Your task to perform on an android device: Open accessibility settings Image 0: 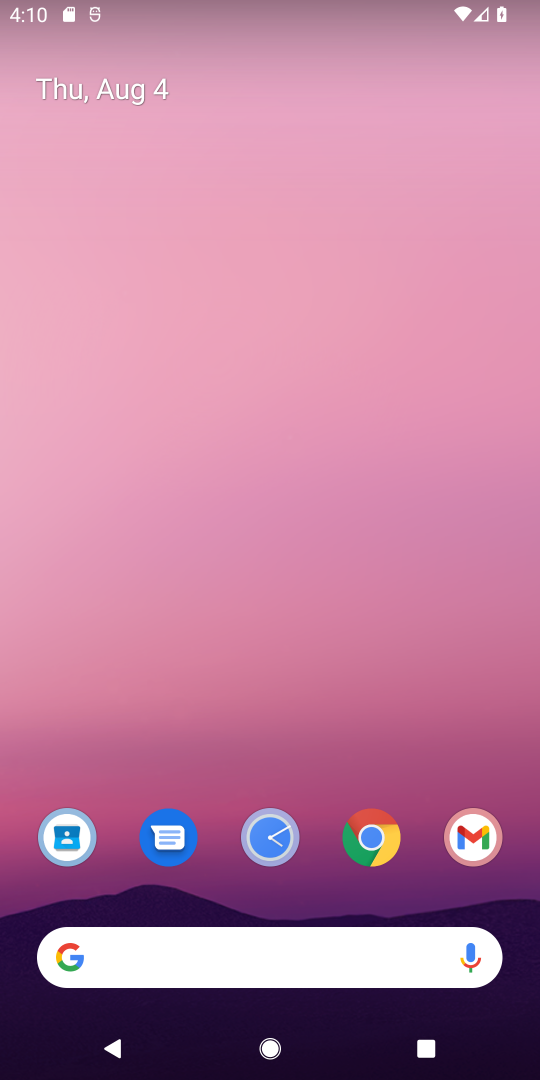
Step 0: press home button
Your task to perform on an android device: Open accessibility settings Image 1: 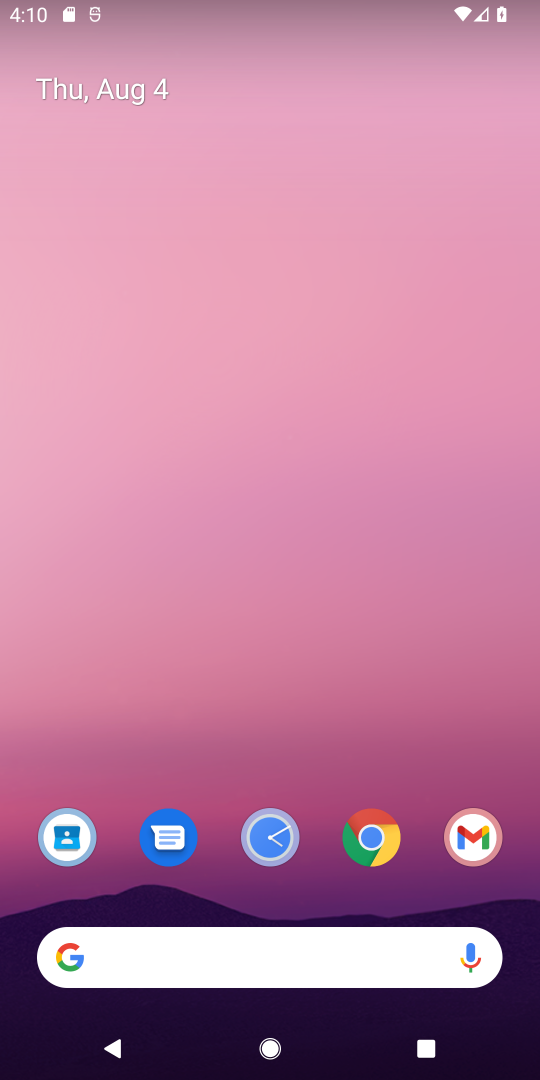
Step 1: drag from (317, 780) to (328, 0)
Your task to perform on an android device: Open accessibility settings Image 2: 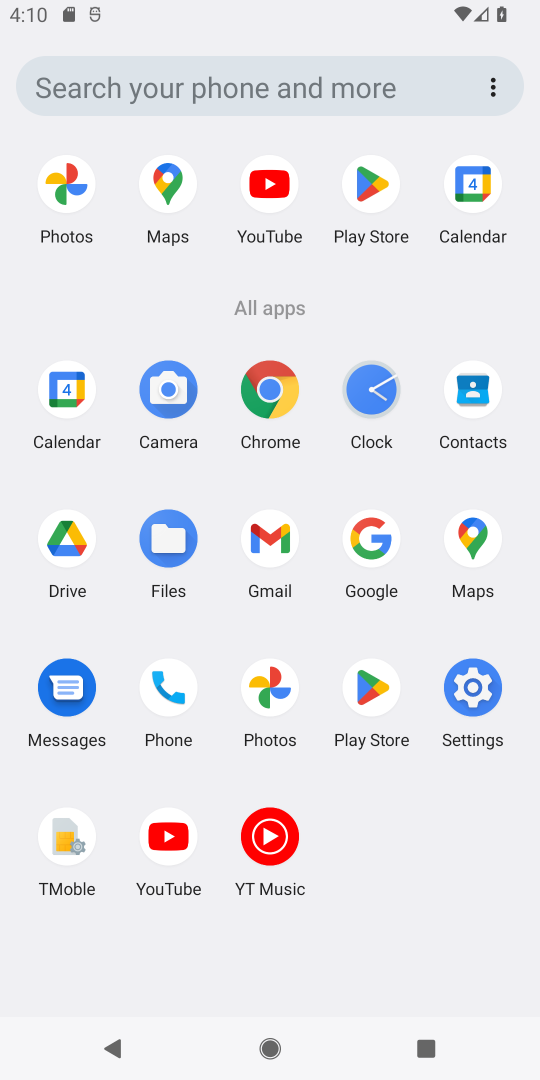
Step 2: click (470, 685)
Your task to perform on an android device: Open accessibility settings Image 3: 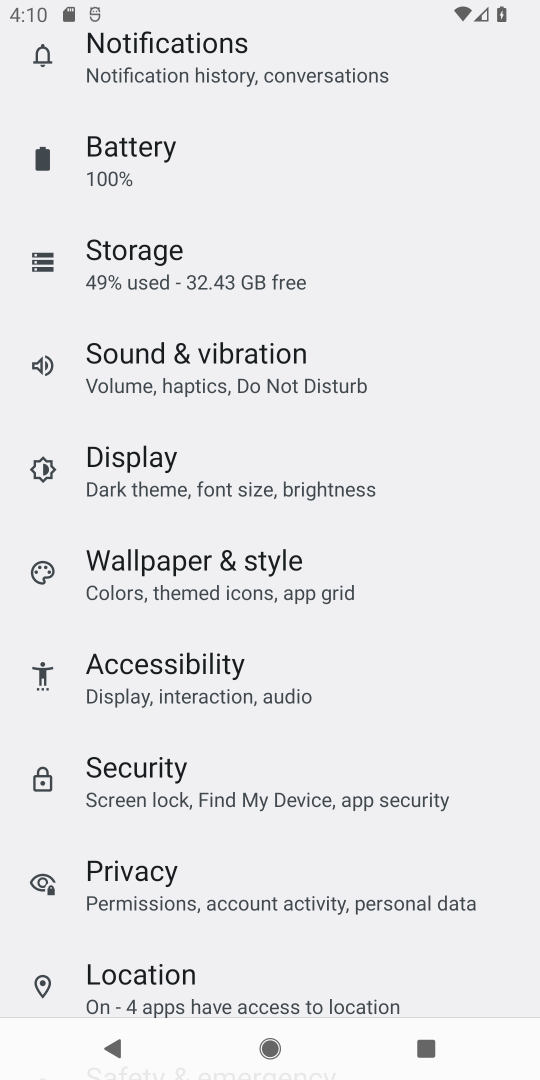
Step 3: click (266, 668)
Your task to perform on an android device: Open accessibility settings Image 4: 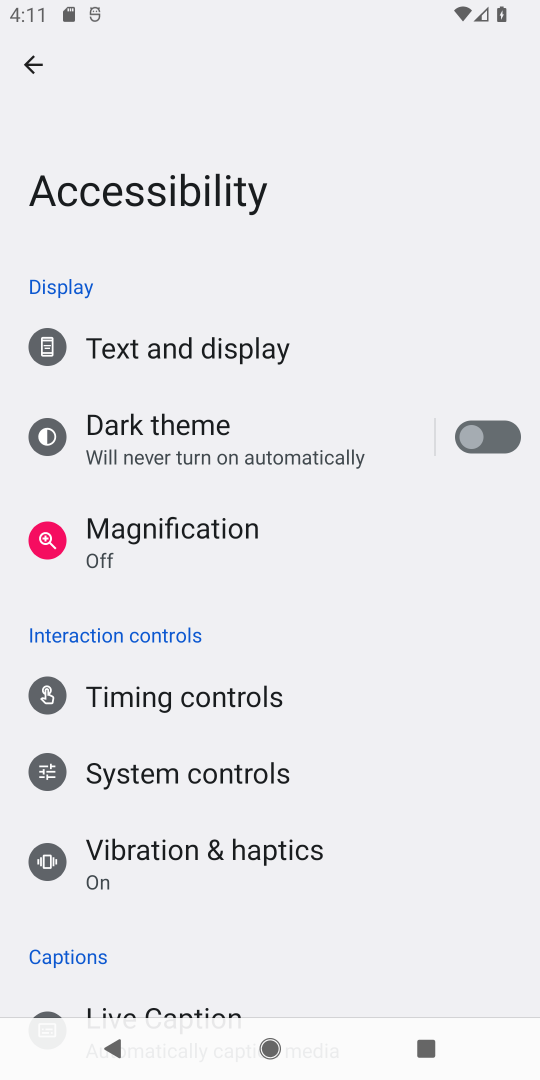
Step 4: task complete